Your task to perform on an android device: turn smart compose on in the gmail app Image 0: 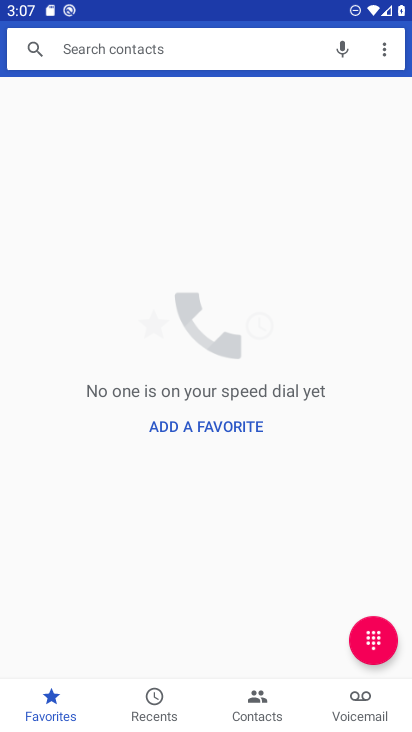
Step 0: press back button
Your task to perform on an android device: turn smart compose on in the gmail app Image 1: 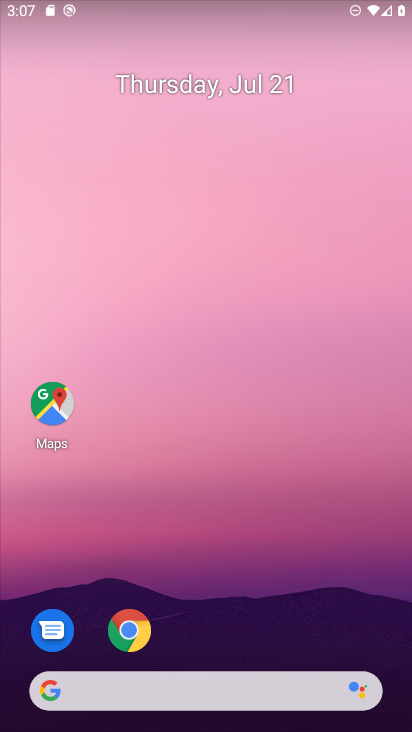
Step 1: drag from (165, 653) to (205, 5)
Your task to perform on an android device: turn smart compose on in the gmail app Image 2: 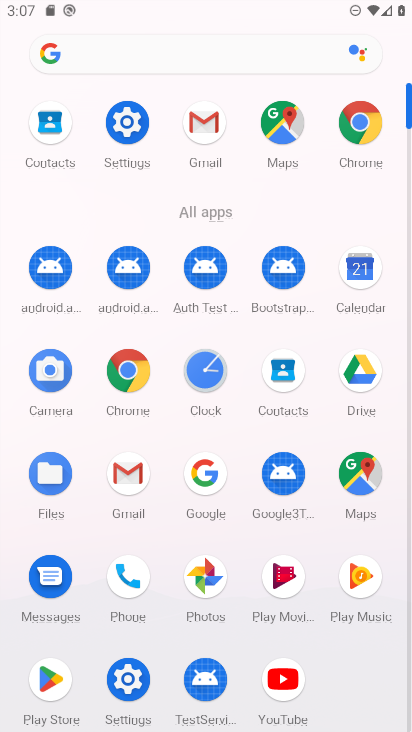
Step 2: click (210, 135)
Your task to perform on an android device: turn smart compose on in the gmail app Image 3: 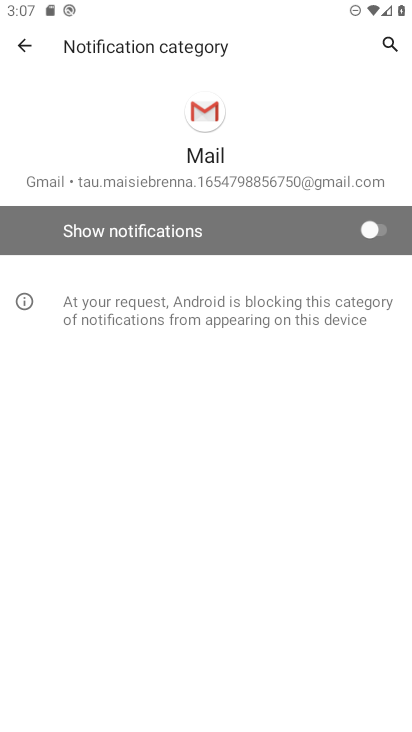
Step 3: click (27, 58)
Your task to perform on an android device: turn smart compose on in the gmail app Image 4: 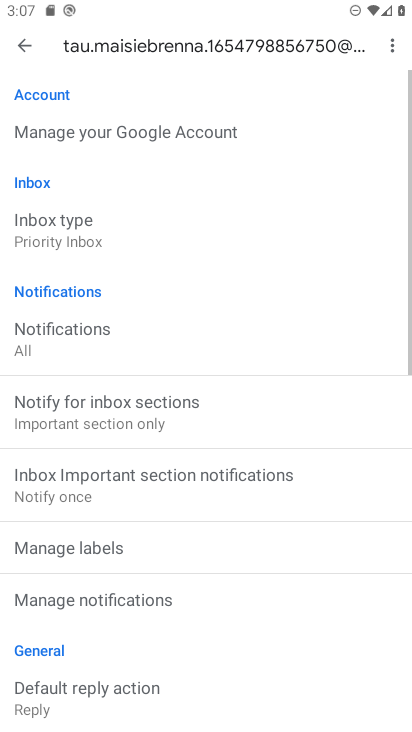
Step 4: task complete